Your task to perform on an android device: Open a new private tab in Chrome Image 0: 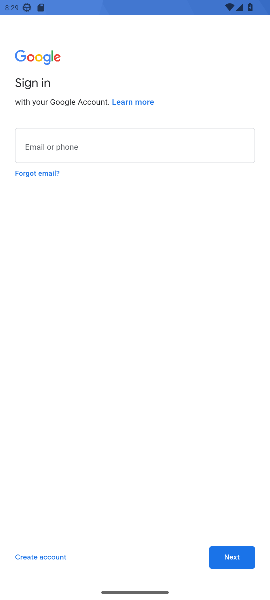
Step 0: press home button
Your task to perform on an android device: Open a new private tab in Chrome Image 1: 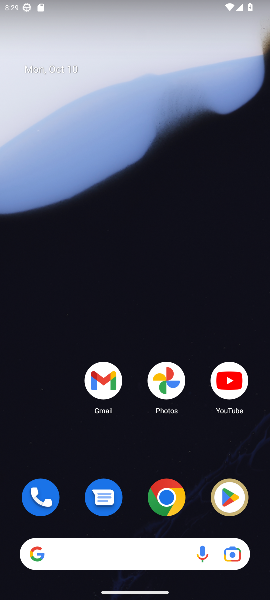
Step 1: click (161, 497)
Your task to perform on an android device: Open a new private tab in Chrome Image 2: 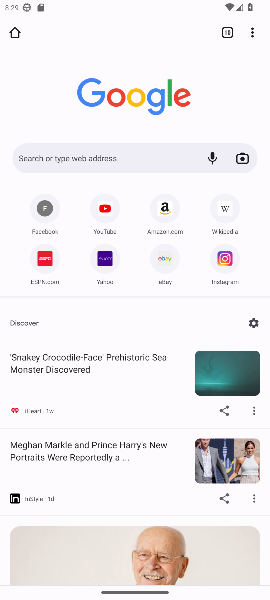
Step 2: click (248, 34)
Your task to perform on an android device: Open a new private tab in Chrome Image 3: 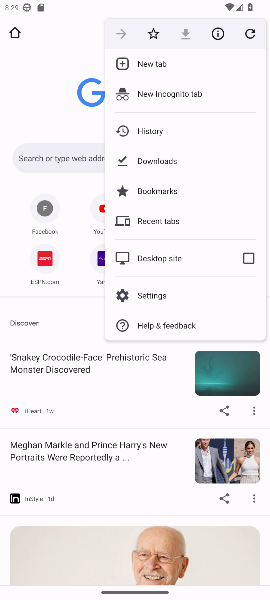
Step 3: click (149, 60)
Your task to perform on an android device: Open a new private tab in Chrome Image 4: 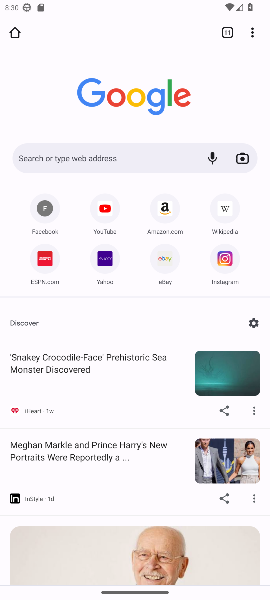
Step 4: task complete